Your task to perform on an android device: allow notifications from all sites in the chrome app Image 0: 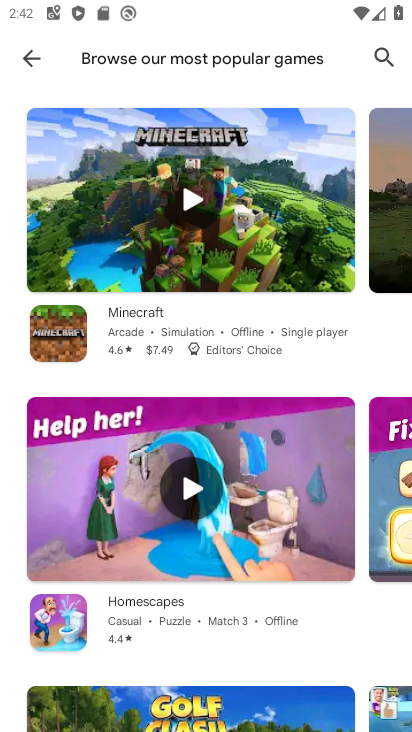
Step 0: press home button
Your task to perform on an android device: allow notifications from all sites in the chrome app Image 1: 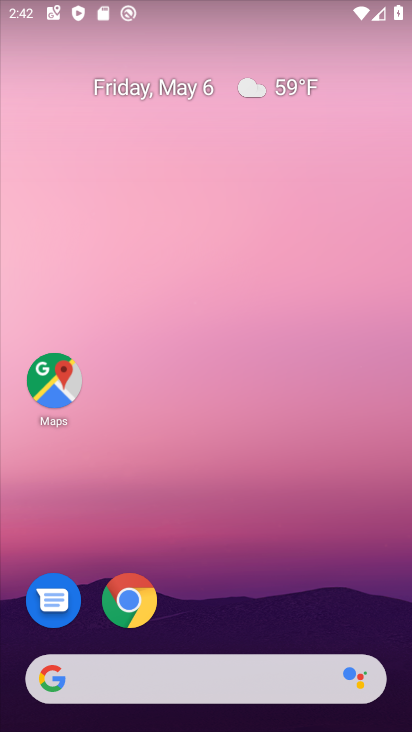
Step 1: click (130, 603)
Your task to perform on an android device: allow notifications from all sites in the chrome app Image 2: 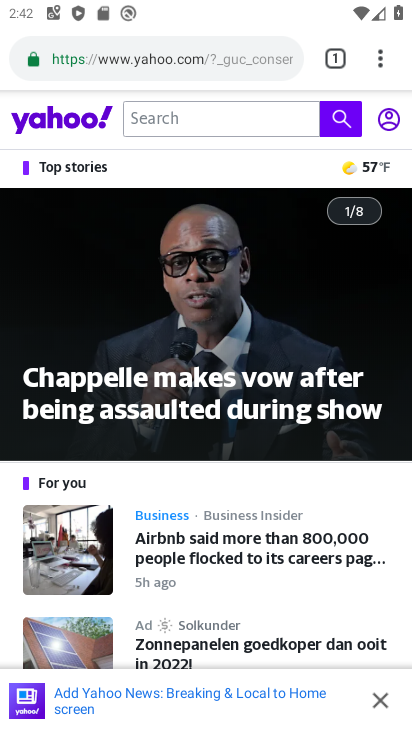
Step 2: click (378, 54)
Your task to perform on an android device: allow notifications from all sites in the chrome app Image 3: 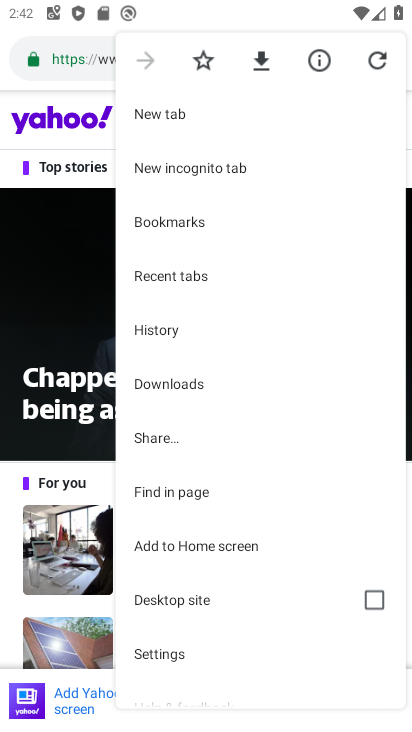
Step 3: click (204, 659)
Your task to perform on an android device: allow notifications from all sites in the chrome app Image 4: 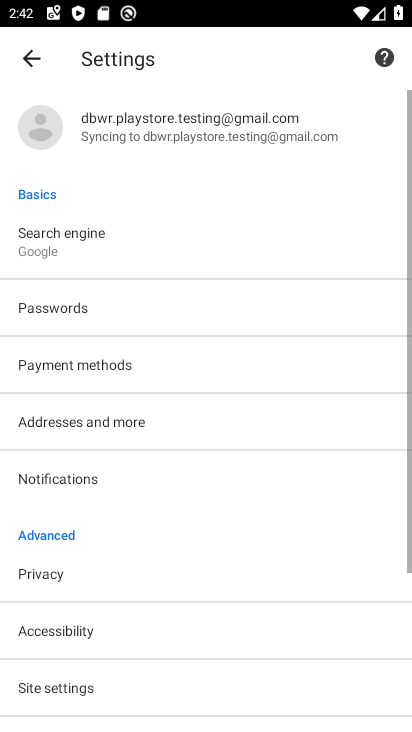
Step 4: drag from (197, 613) to (177, 221)
Your task to perform on an android device: allow notifications from all sites in the chrome app Image 5: 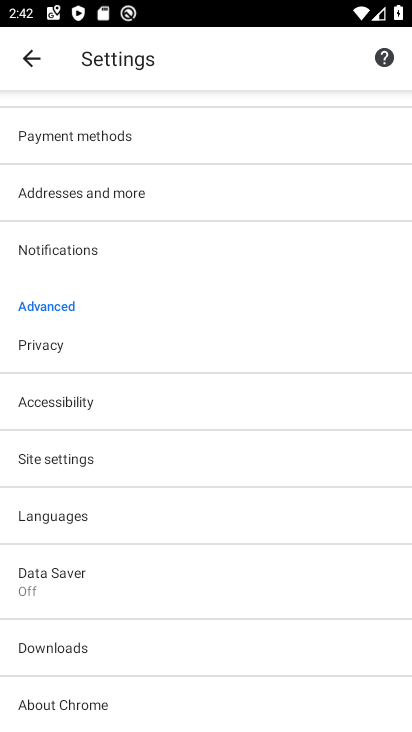
Step 5: drag from (196, 590) to (211, 529)
Your task to perform on an android device: allow notifications from all sites in the chrome app Image 6: 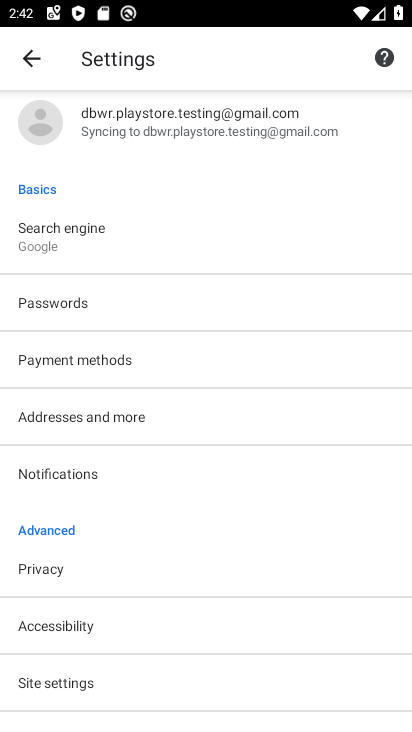
Step 6: drag from (152, 593) to (219, 429)
Your task to perform on an android device: allow notifications from all sites in the chrome app Image 7: 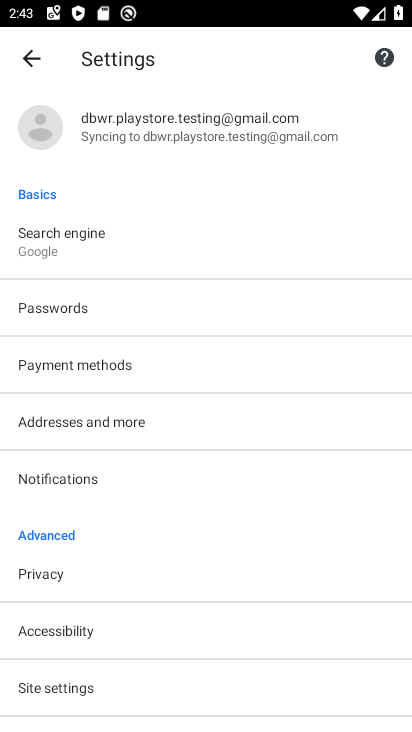
Step 7: drag from (122, 636) to (172, 302)
Your task to perform on an android device: allow notifications from all sites in the chrome app Image 8: 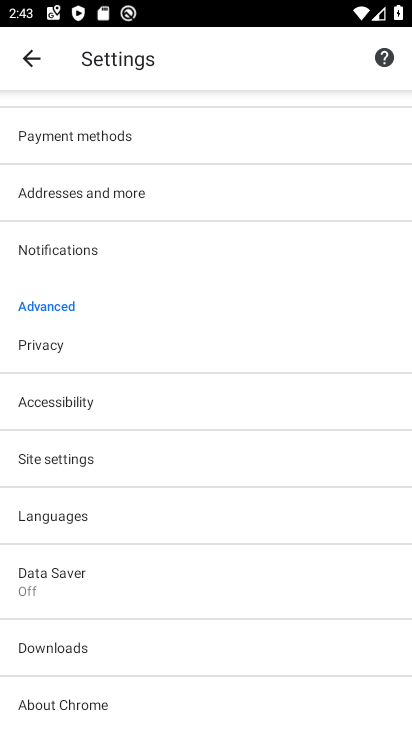
Step 8: click (63, 460)
Your task to perform on an android device: allow notifications from all sites in the chrome app Image 9: 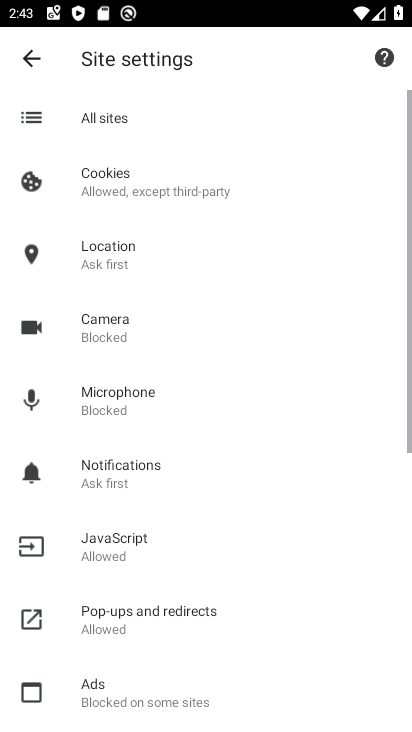
Step 9: drag from (199, 582) to (195, 426)
Your task to perform on an android device: allow notifications from all sites in the chrome app Image 10: 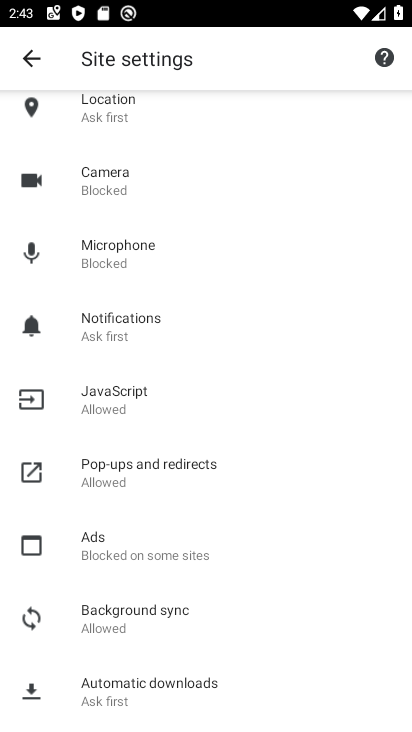
Step 10: click (146, 305)
Your task to perform on an android device: allow notifications from all sites in the chrome app Image 11: 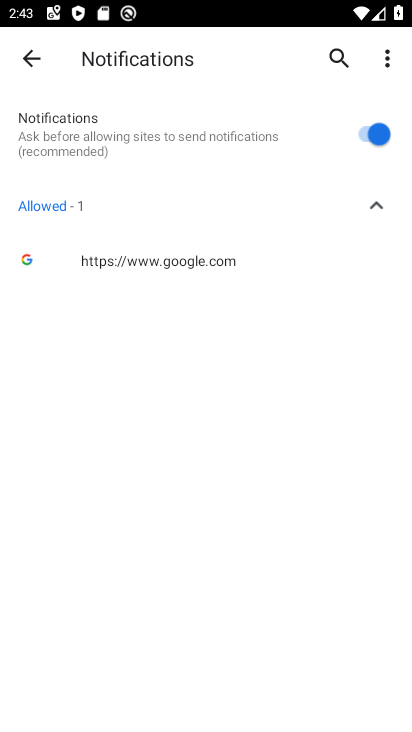
Step 11: task complete